Your task to perform on an android device: turn on bluetooth scan Image 0: 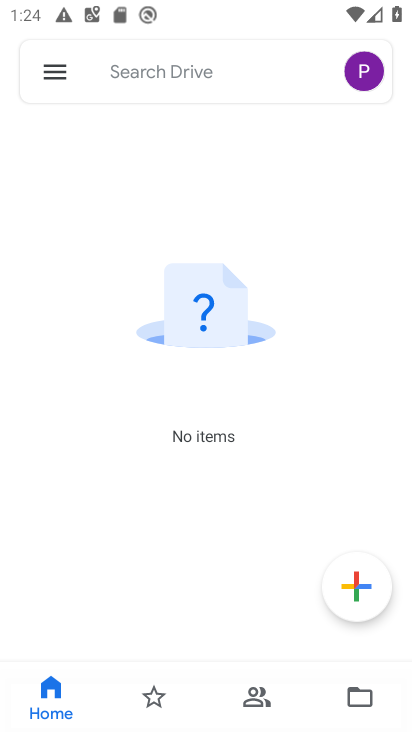
Step 0: press home button
Your task to perform on an android device: turn on bluetooth scan Image 1: 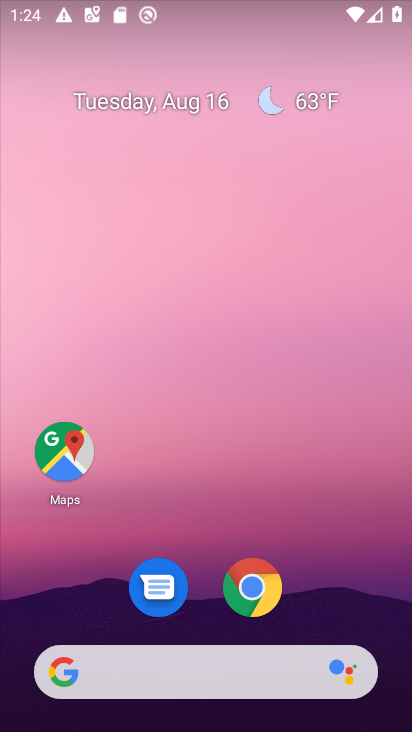
Step 1: drag from (123, 645) to (128, 337)
Your task to perform on an android device: turn on bluetooth scan Image 2: 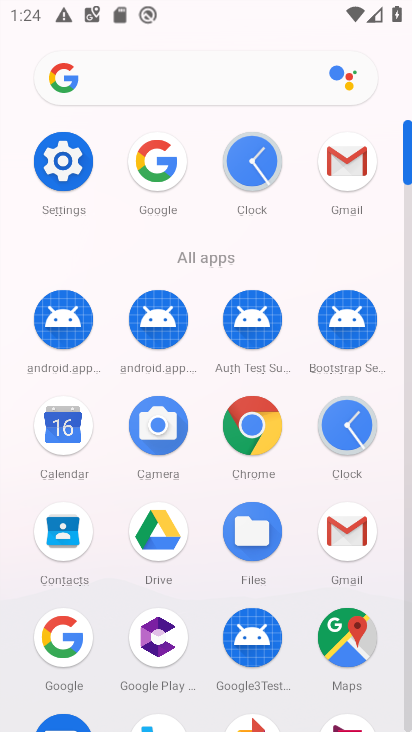
Step 2: click (68, 185)
Your task to perform on an android device: turn on bluetooth scan Image 3: 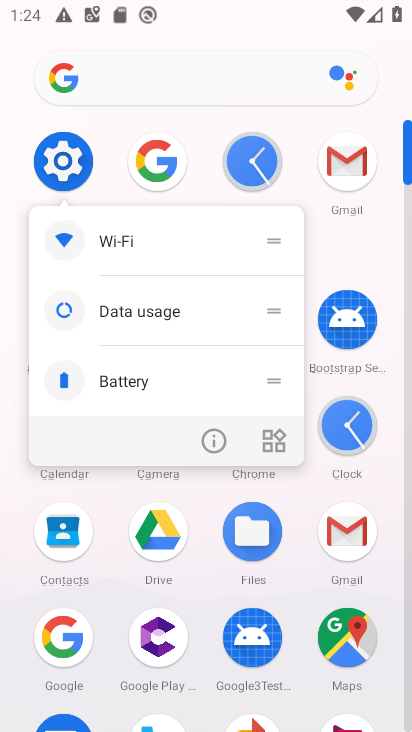
Step 3: click (55, 186)
Your task to perform on an android device: turn on bluetooth scan Image 4: 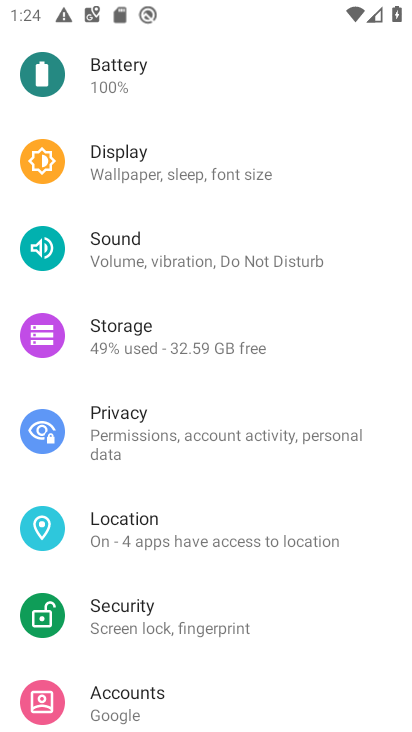
Step 4: click (126, 521)
Your task to perform on an android device: turn on bluetooth scan Image 5: 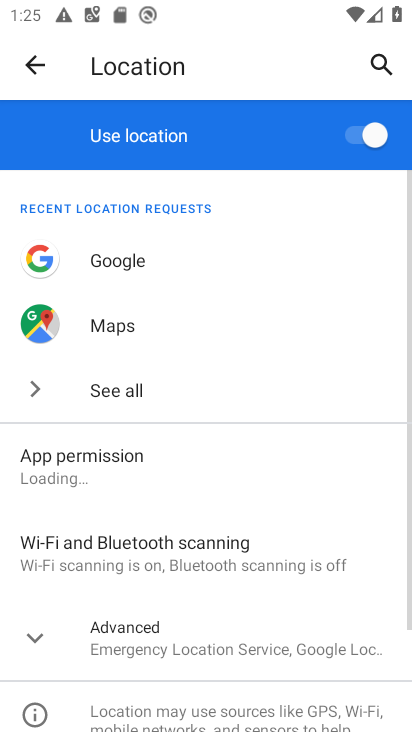
Step 5: click (127, 544)
Your task to perform on an android device: turn on bluetooth scan Image 6: 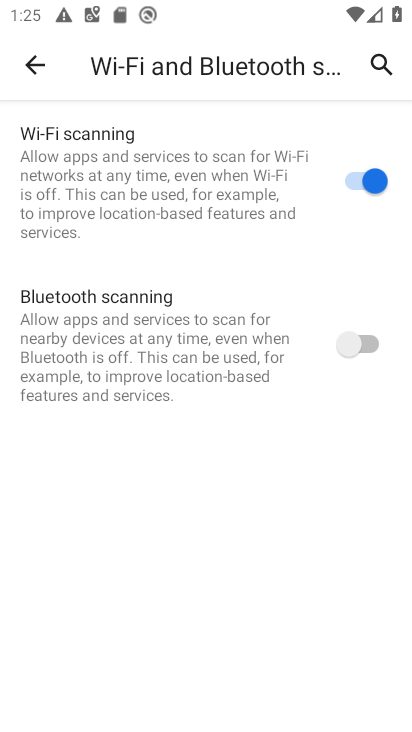
Step 6: click (363, 324)
Your task to perform on an android device: turn on bluetooth scan Image 7: 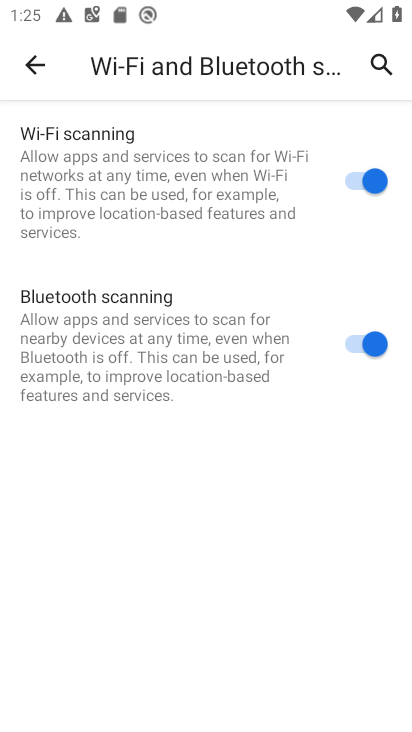
Step 7: task complete